Your task to perform on an android device: Open calendar and show me the fourth week of next month Image 0: 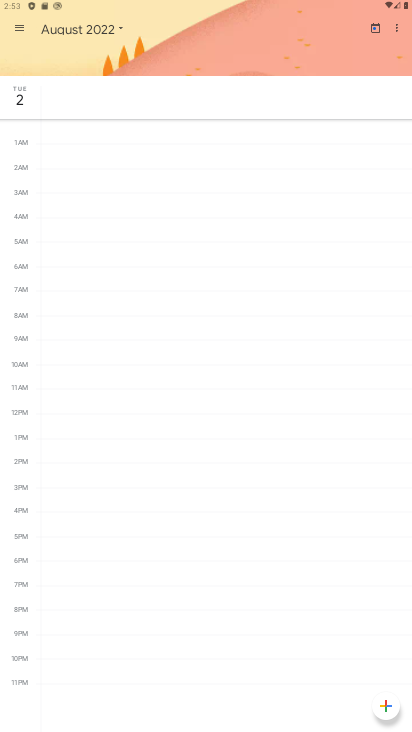
Step 0: click (26, 29)
Your task to perform on an android device: Open calendar and show me the fourth week of next month Image 1: 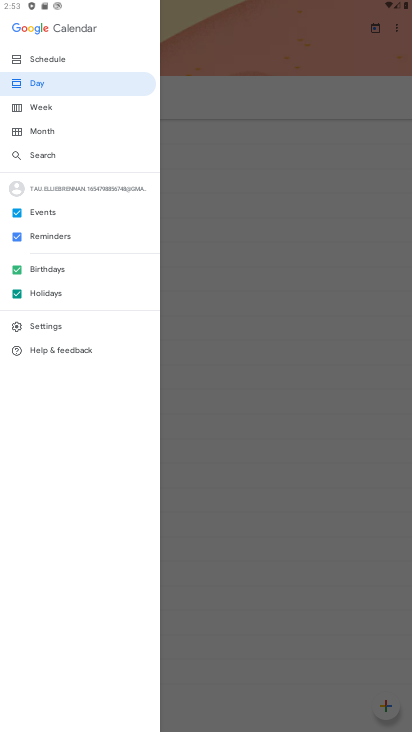
Step 1: click (45, 107)
Your task to perform on an android device: Open calendar and show me the fourth week of next month Image 2: 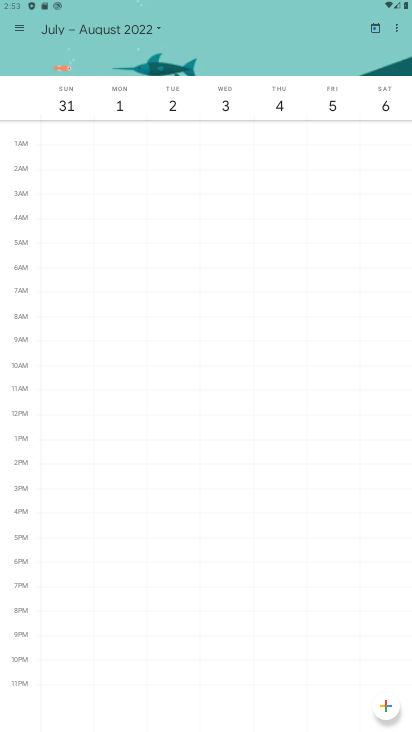
Step 2: click (77, 42)
Your task to perform on an android device: Open calendar and show me the fourth week of next month Image 3: 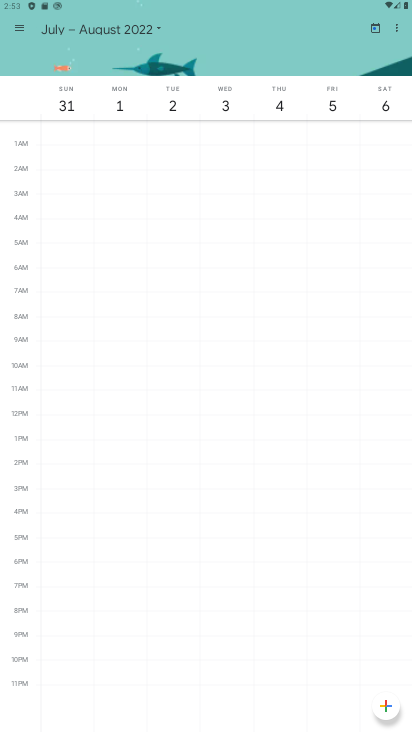
Step 3: click (10, 28)
Your task to perform on an android device: Open calendar and show me the fourth week of next month Image 4: 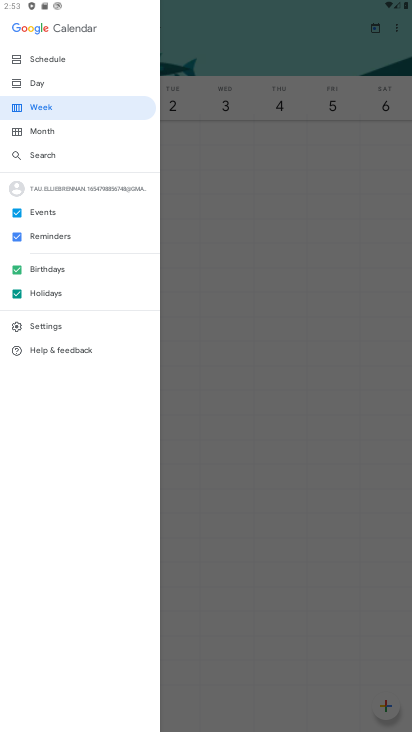
Step 4: click (36, 75)
Your task to perform on an android device: Open calendar and show me the fourth week of next month Image 5: 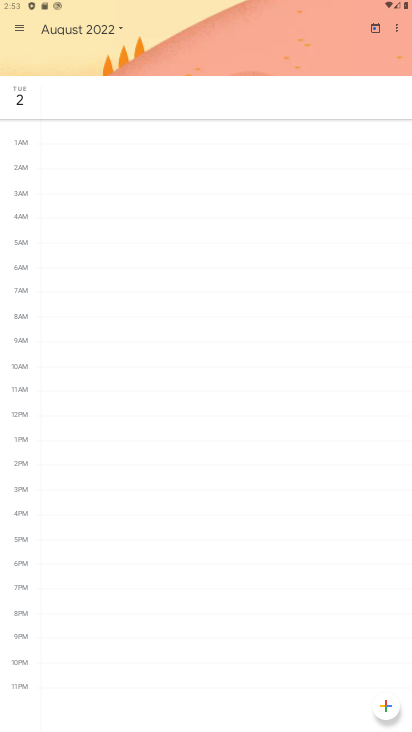
Step 5: click (15, 28)
Your task to perform on an android device: Open calendar and show me the fourth week of next month Image 6: 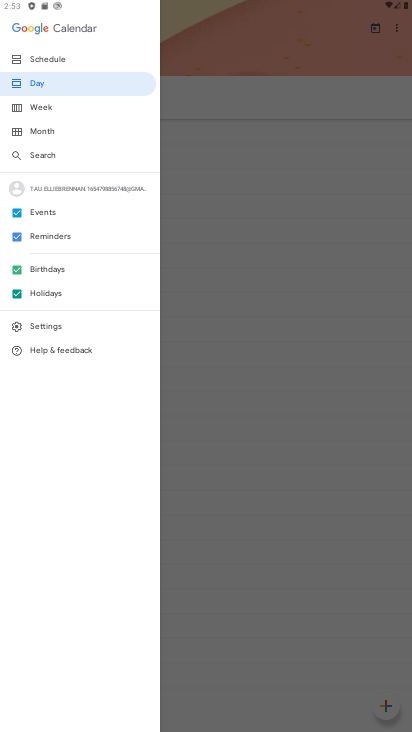
Step 6: click (51, 130)
Your task to perform on an android device: Open calendar and show me the fourth week of next month Image 7: 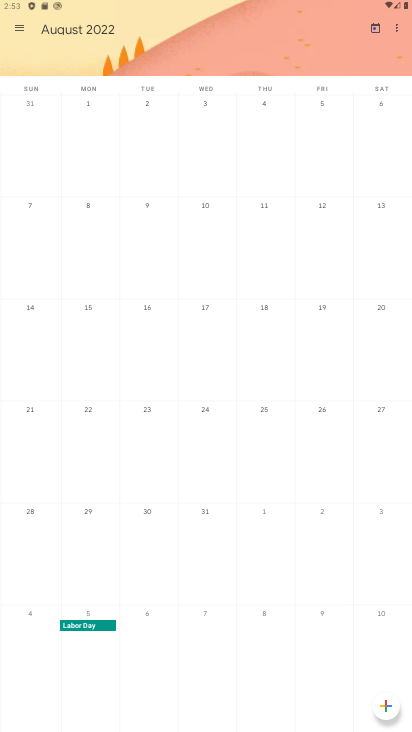
Step 7: click (84, 407)
Your task to perform on an android device: Open calendar and show me the fourth week of next month Image 8: 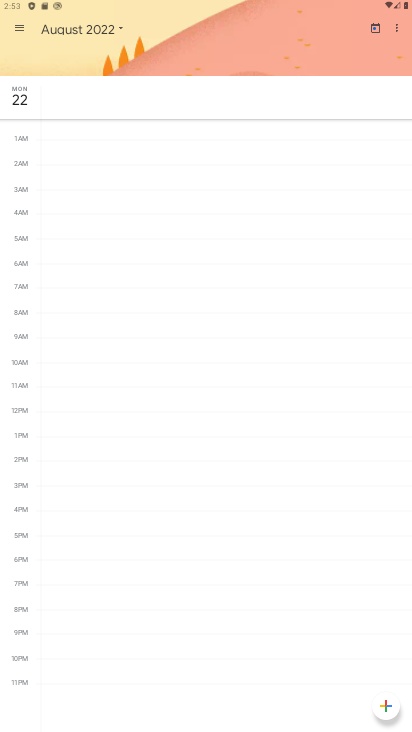
Step 8: task complete